Your task to perform on an android device: See recent photos Image 0: 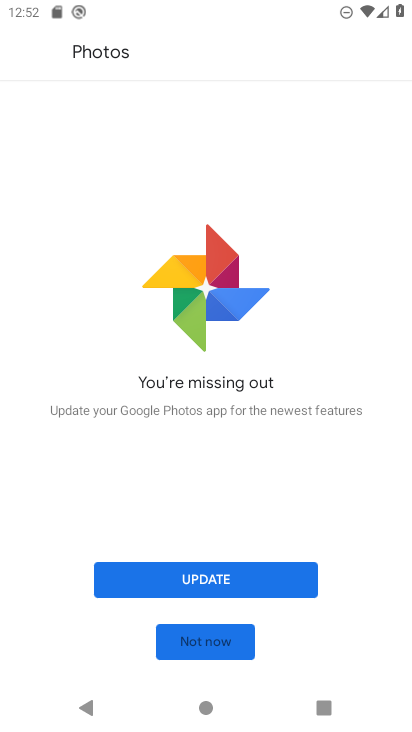
Step 0: click (226, 650)
Your task to perform on an android device: See recent photos Image 1: 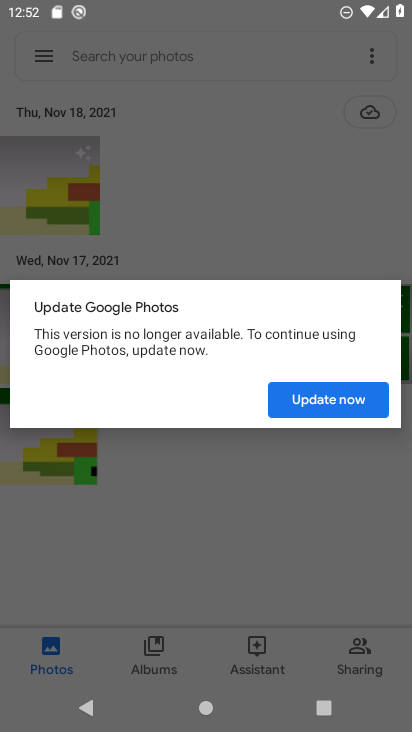
Step 1: click (314, 381)
Your task to perform on an android device: See recent photos Image 2: 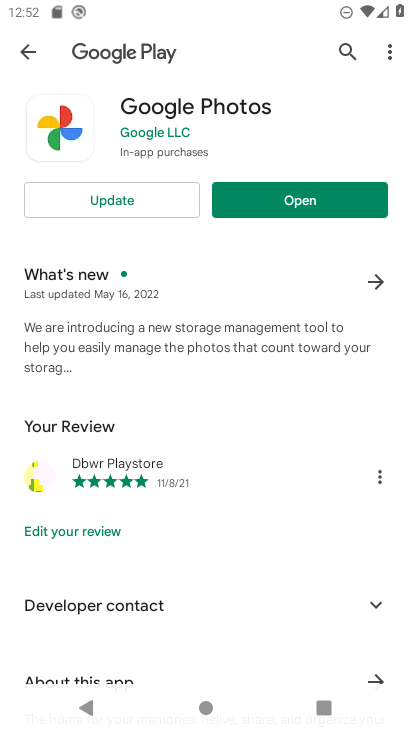
Step 2: click (318, 218)
Your task to perform on an android device: See recent photos Image 3: 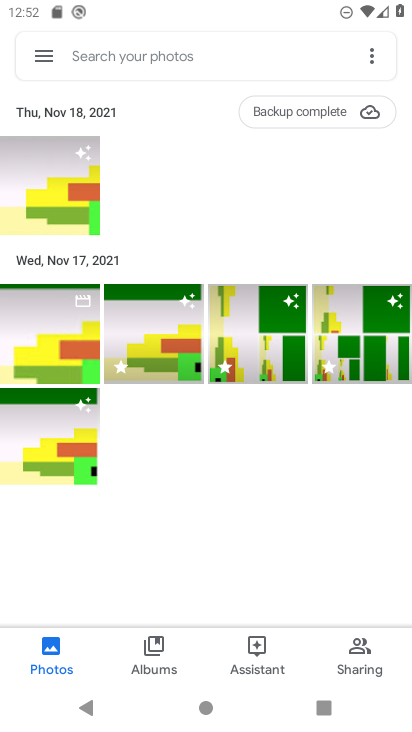
Step 3: task complete